Your task to perform on an android device: Go to Maps Image 0: 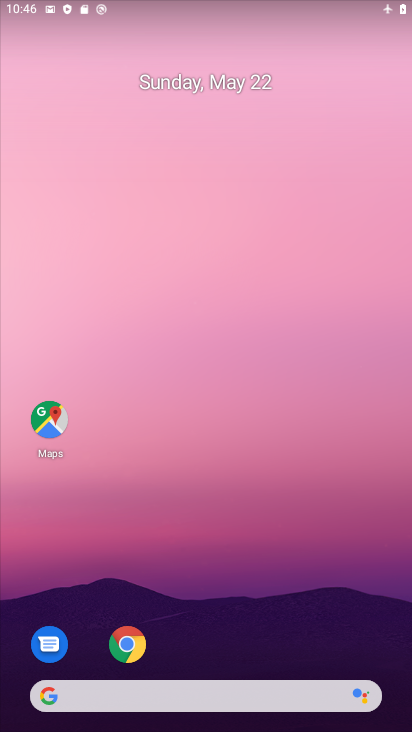
Step 0: press home button
Your task to perform on an android device: Go to Maps Image 1: 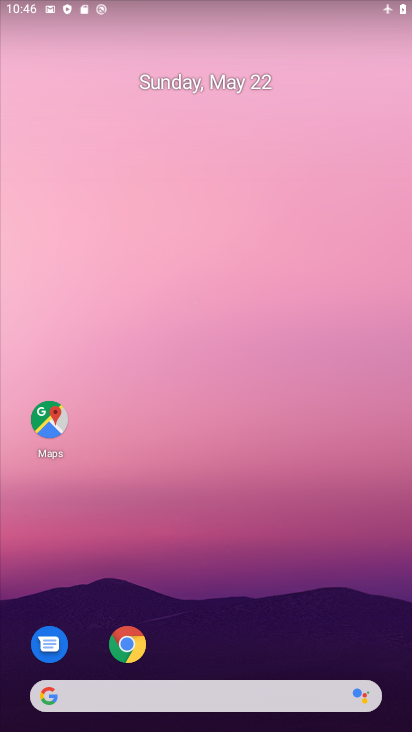
Step 1: click (46, 417)
Your task to perform on an android device: Go to Maps Image 2: 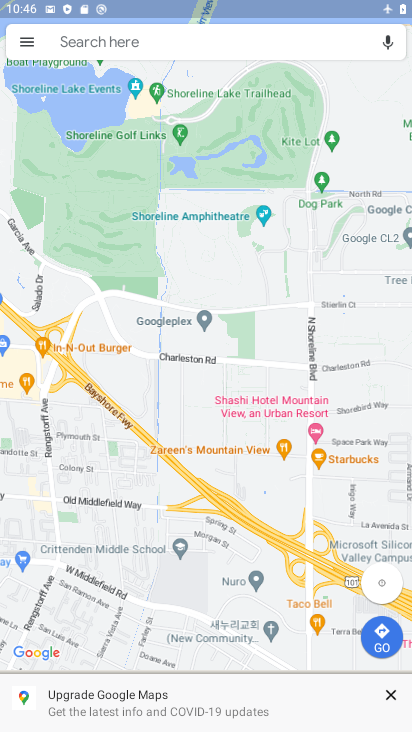
Step 2: task complete